Your task to perform on an android device: Go to Reddit.com Image 0: 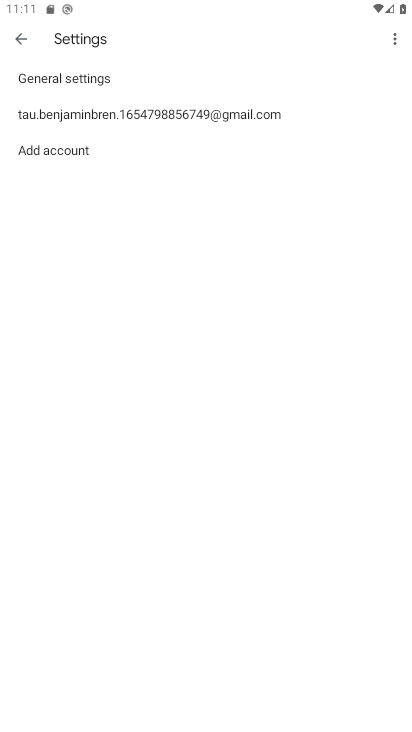
Step 0: press home button
Your task to perform on an android device: Go to Reddit.com Image 1: 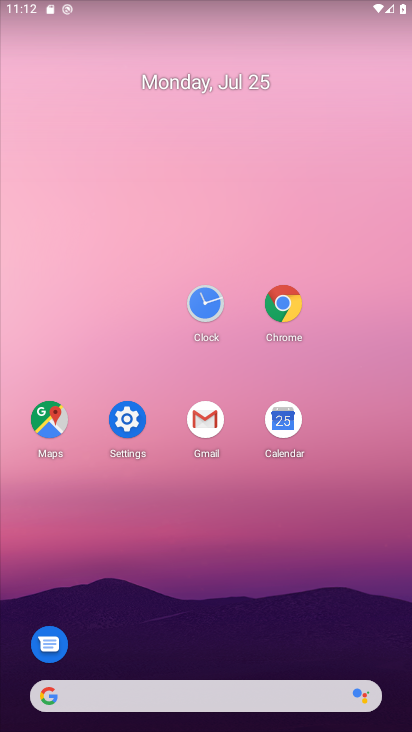
Step 1: click (279, 299)
Your task to perform on an android device: Go to Reddit.com Image 2: 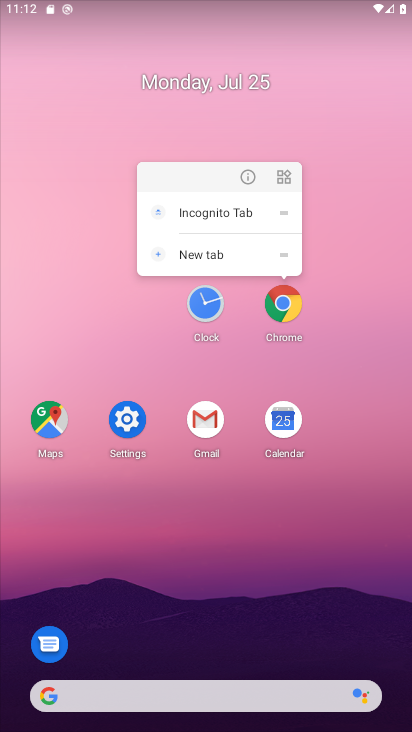
Step 2: click (280, 305)
Your task to perform on an android device: Go to Reddit.com Image 3: 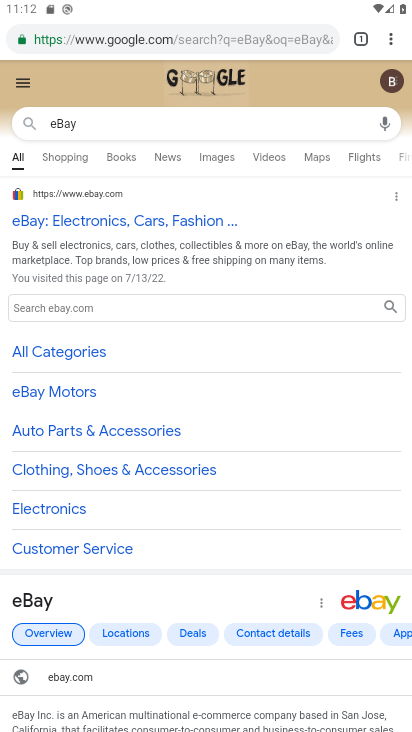
Step 3: click (293, 43)
Your task to perform on an android device: Go to Reddit.com Image 4: 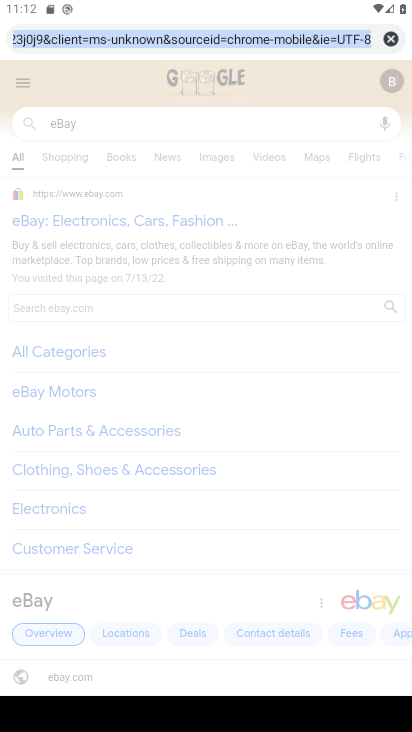
Step 4: click (392, 34)
Your task to perform on an android device: Go to Reddit.com Image 5: 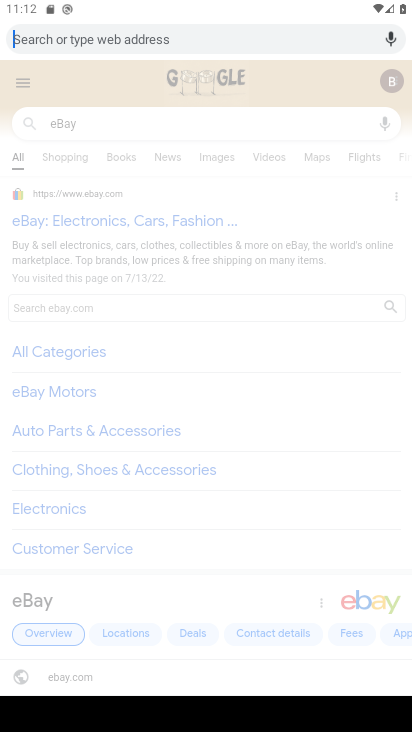
Step 5: type "Reddit.com"
Your task to perform on an android device: Go to Reddit.com Image 6: 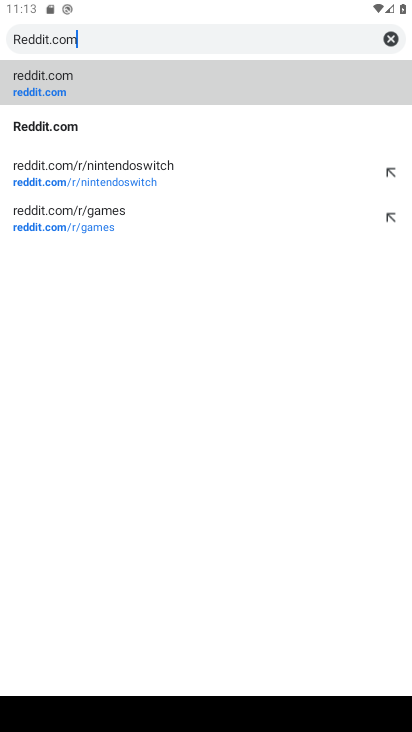
Step 6: click (63, 126)
Your task to perform on an android device: Go to Reddit.com Image 7: 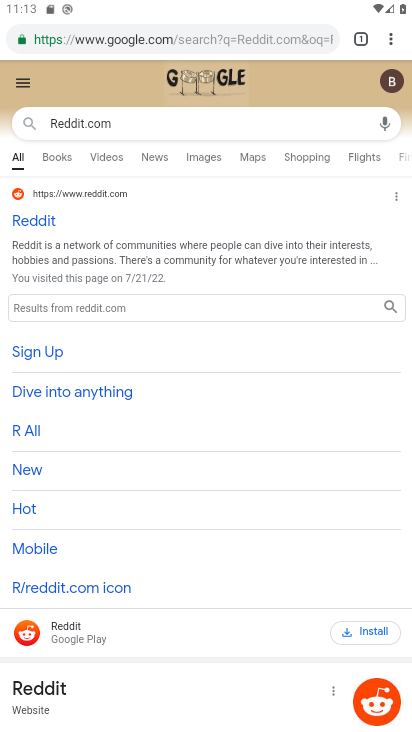
Step 7: task complete